Your task to perform on an android device: When is my next meeting? Image 0: 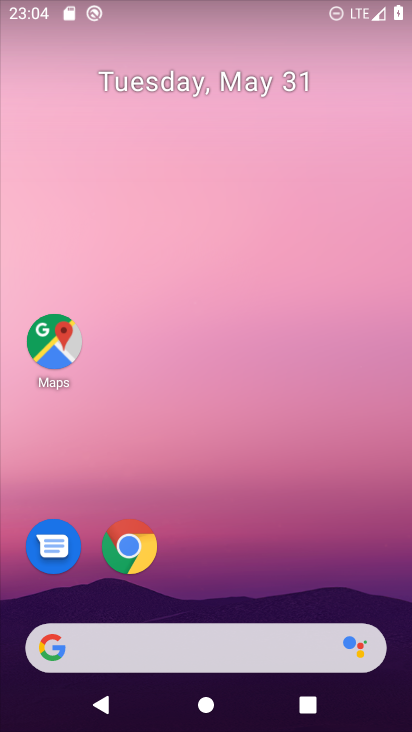
Step 0: drag from (395, 685) to (340, 142)
Your task to perform on an android device: When is my next meeting? Image 1: 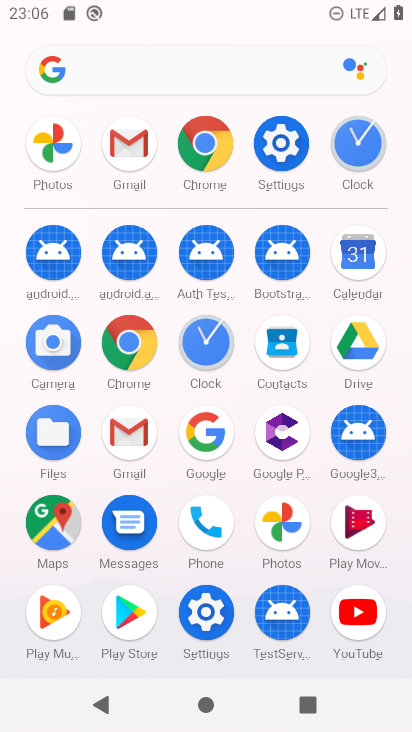
Step 1: click (267, 156)
Your task to perform on an android device: When is my next meeting? Image 2: 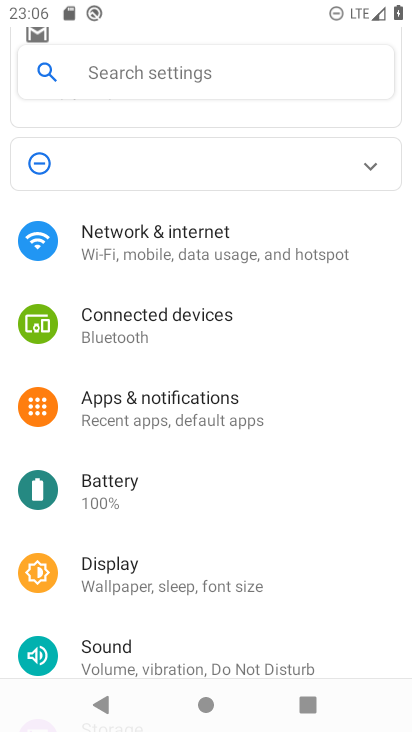
Step 2: press home button
Your task to perform on an android device: When is my next meeting? Image 3: 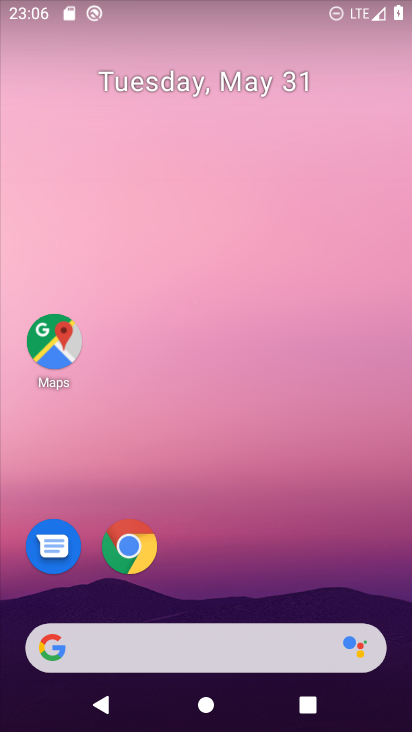
Step 3: drag from (394, 645) to (360, 106)
Your task to perform on an android device: When is my next meeting? Image 4: 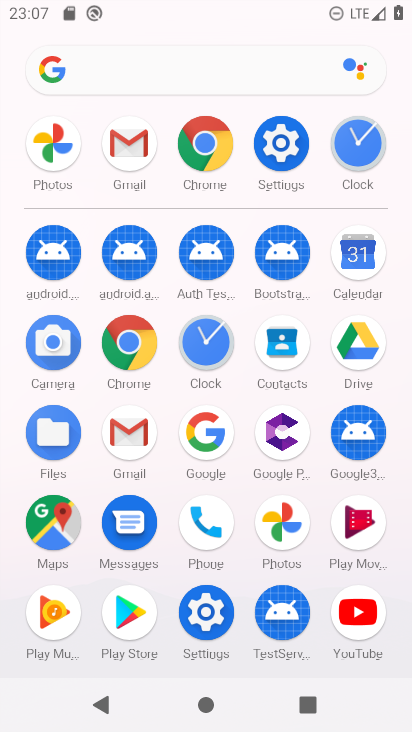
Step 4: click (358, 260)
Your task to perform on an android device: When is my next meeting? Image 5: 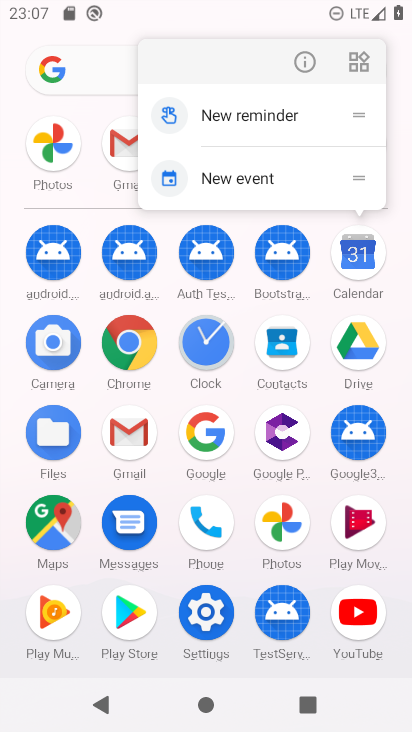
Step 5: click (364, 252)
Your task to perform on an android device: When is my next meeting? Image 6: 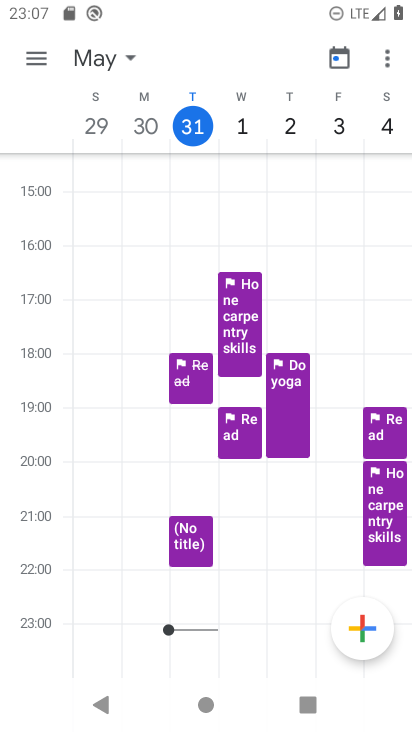
Step 6: click (35, 53)
Your task to perform on an android device: When is my next meeting? Image 7: 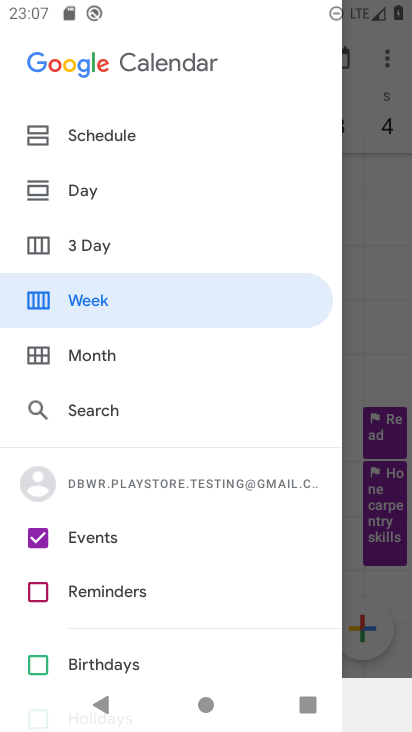
Step 7: click (76, 140)
Your task to perform on an android device: When is my next meeting? Image 8: 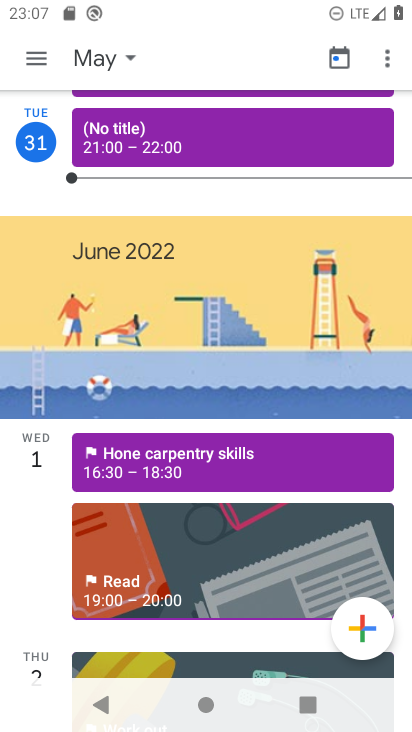
Step 8: task complete